Your task to perform on an android device: Open battery settings Image 0: 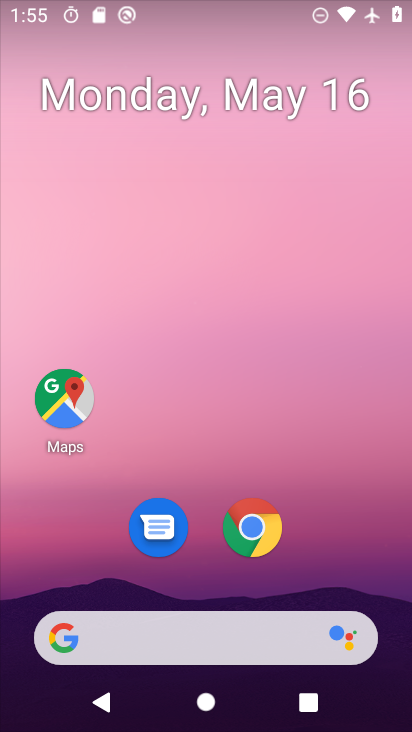
Step 0: press home button
Your task to perform on an android device: Open battery settings Image 1: 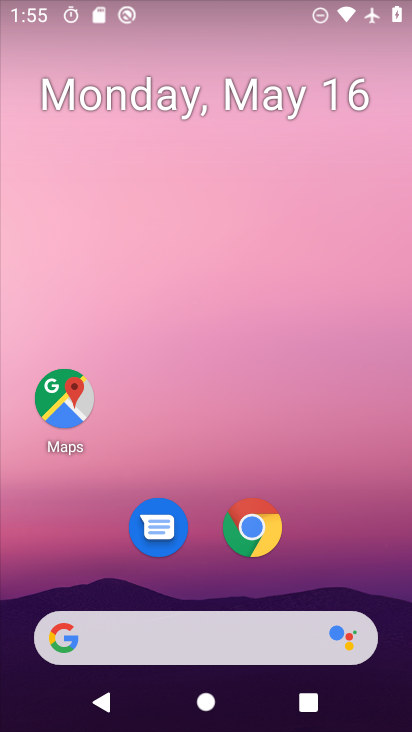
Step 1: drag from (182, 639) to (333, 182)
Your task to perform on an android device: Open battery settings Image 2: 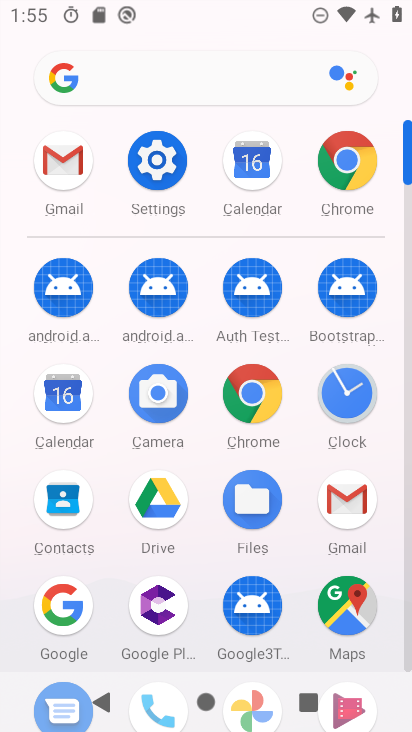
Step 2: click (160, 162)
Your task to perform on an android device: Open battery settings Image 3: 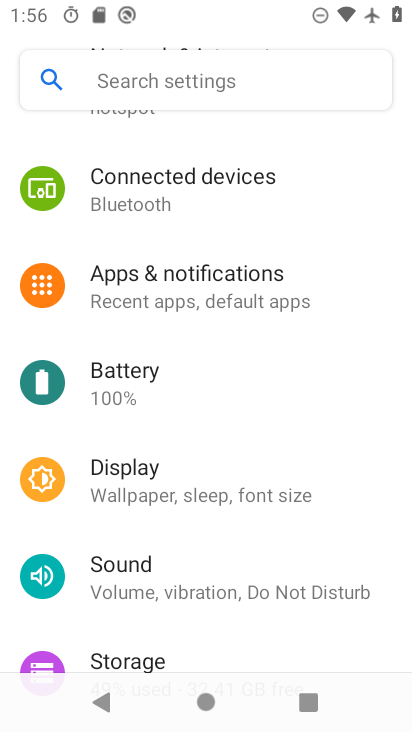
Step 3: click (143, 372)
Your task to perform on an android device: Open battery settings Image 4: 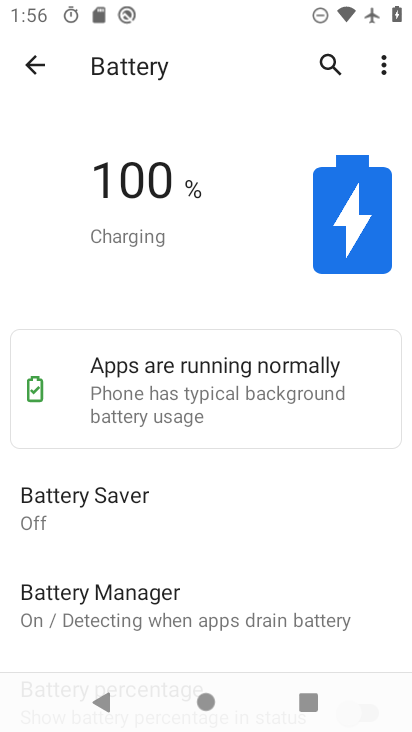
Step 4: task complete